Your task to perform on an android device: Open the phone app and click the voicemail tab. Image 0: 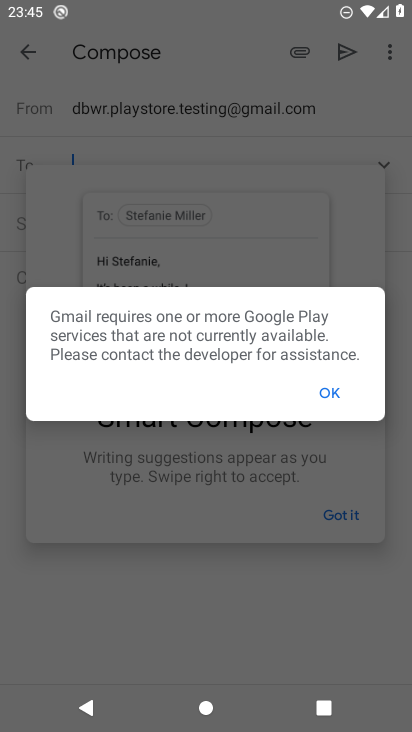
Step 0: press home button
Your task to perform on an android device: Open the phone app and click the voicemail tab. Image 1: 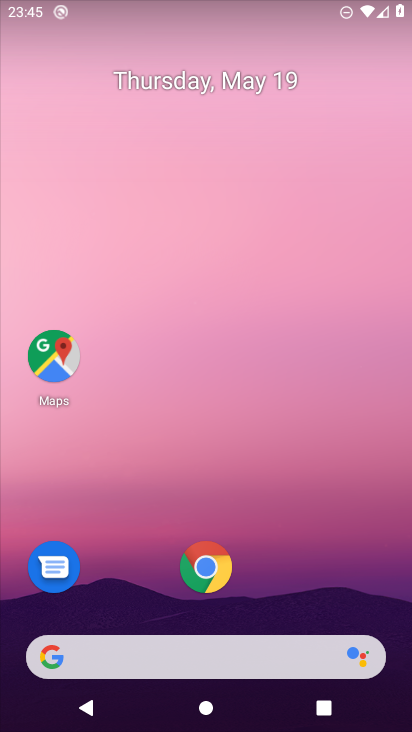
Step 1: drag from (263, 597) to (328, 104)
Your task to perform on an android device: Open the phone app and click the voicemail tab. Image 2: 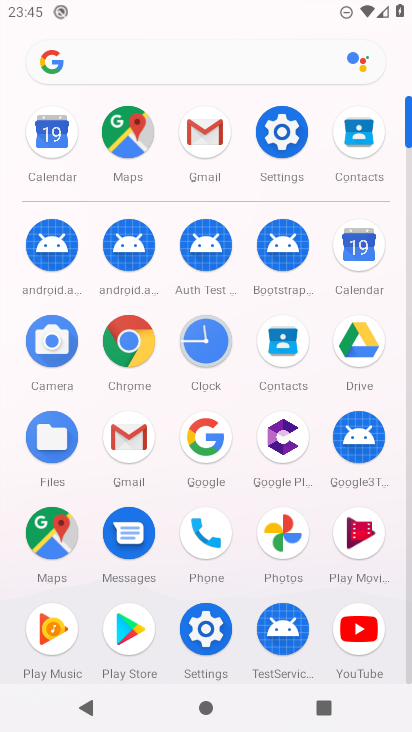
Step 2: click (198, 532)
Your task to perform on an android device: Open the phone app and click the voicemail tab. Image 3: 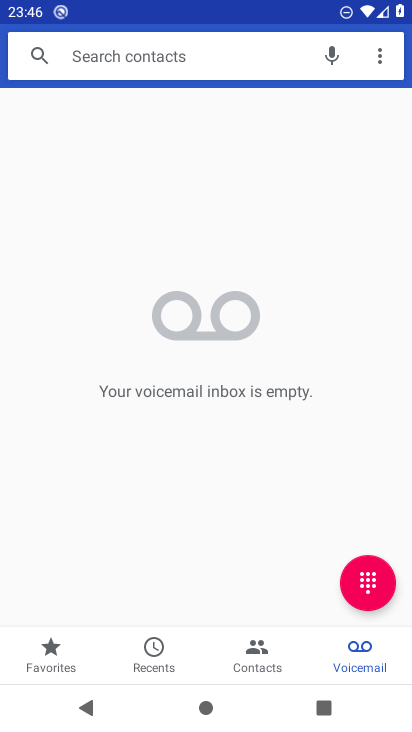
Step 3: task complete